Your task to perform on an android device: all mails in gmail Image 0: 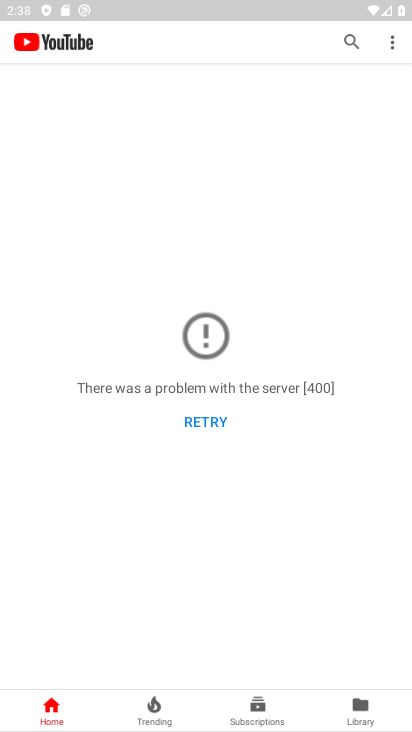
Step 0: press home button
Your task to perform on an android device: all mails in gmail Image 1: 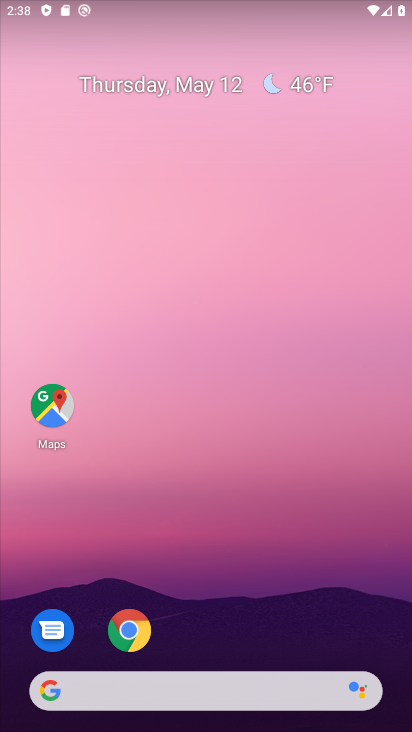
Step 1: drag from (245, 603) to (198, 163)
Your task to perform on an android device: all mails in gmail Image 2: 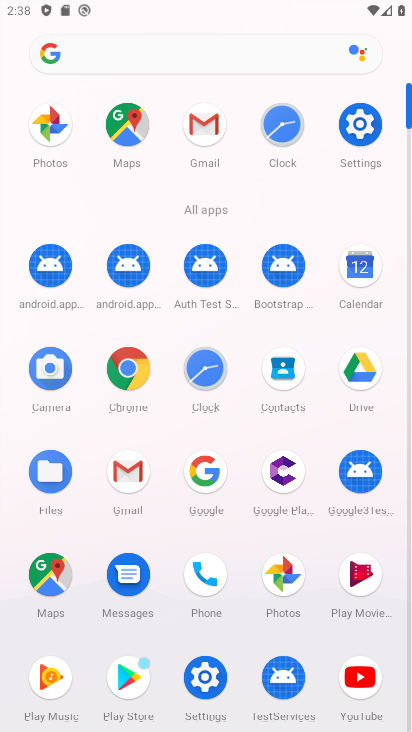
Step 2: click (203, 121)
Your task to perform on an android device: all mails in gmail Image 3: 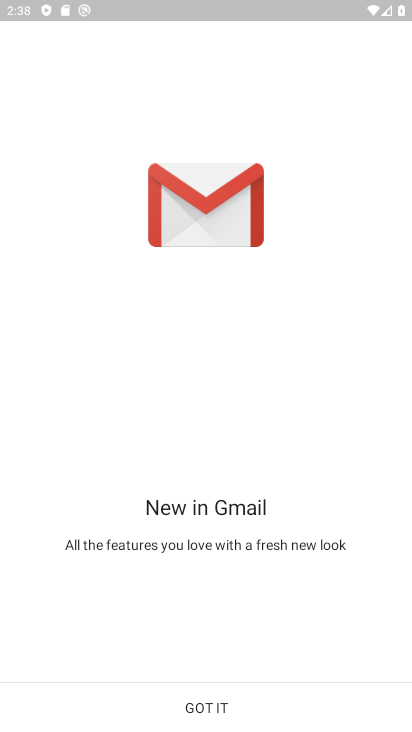
Step 3: click (195, 693)
Your task to perform on an android device: all mails in gmail Image 4: 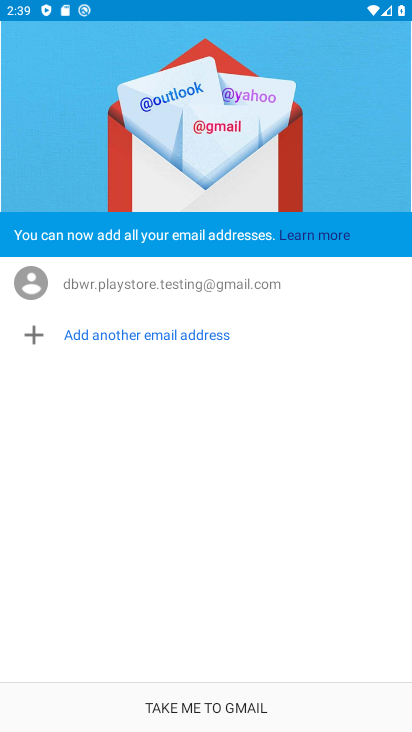
Step 4: click (225, 701)
Your task to perform on an android device: all mails in gmail Image 5: 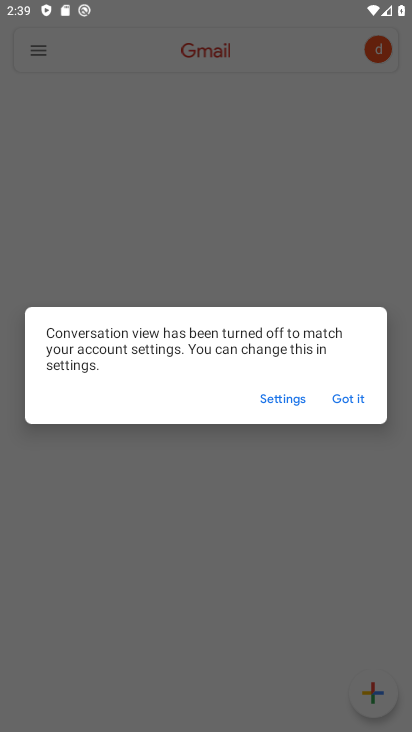
Step 5: click (351, 401)
Your task to perform on an android device: all mails in gmail Image 6: 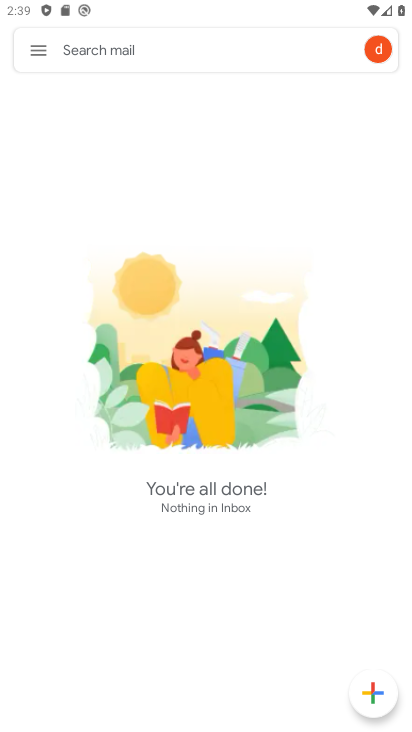
Step 6: click (28, 42)
Your task to perform on an android device: all mails in gmail Image 7: 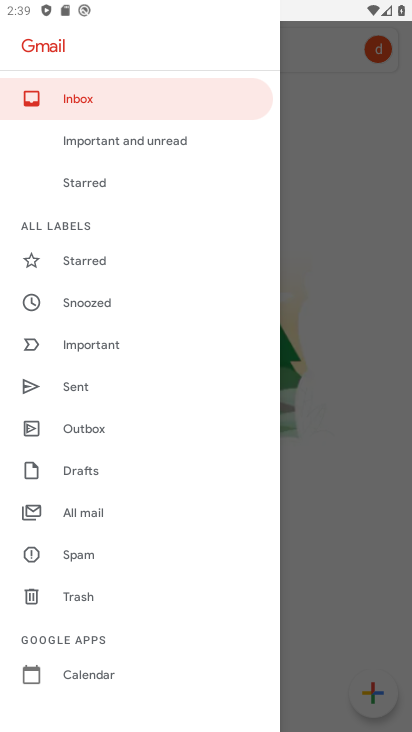
Step 7: click (81, 518)
Your task to perform on an android device: all mails in gmail Image 8: 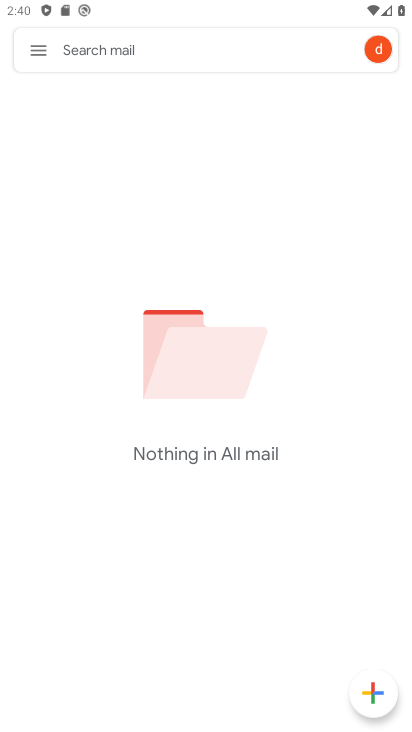
Step 8: task complete